Your task to perform on an android device: Go to CNN.com Image 0: 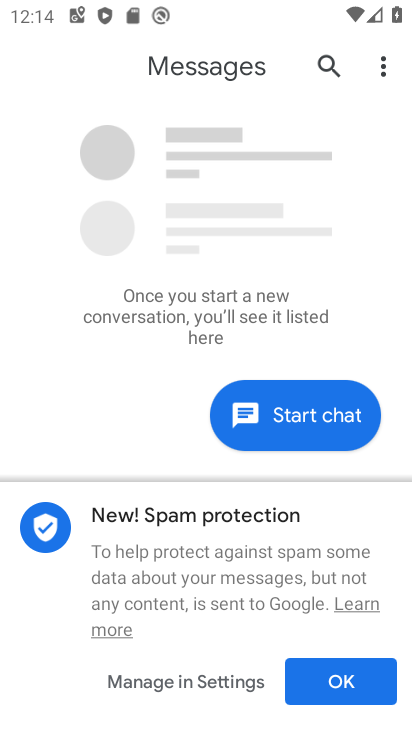
Step 0: press home button
Your task to perform on an android device: Go to CNN.com Image 1: 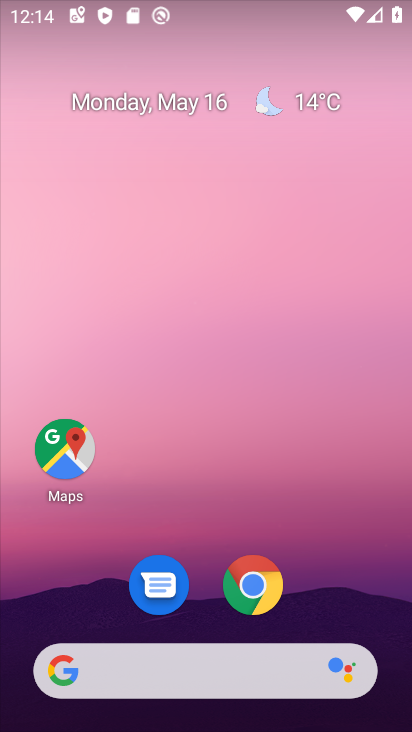
Step 1: click (192, 674)
Your task to perform on an android device: Go to CNN.com Image 2: 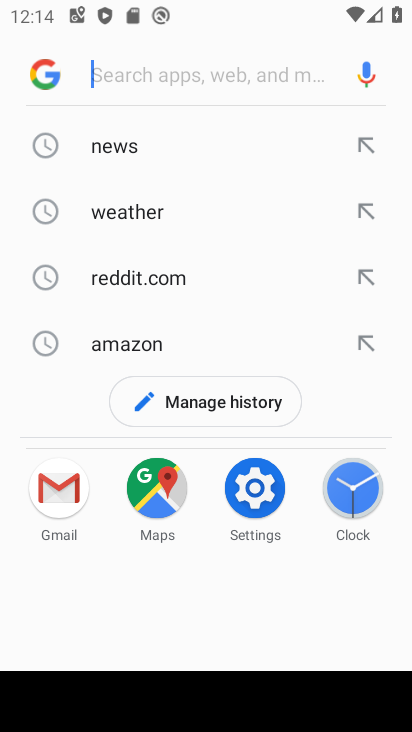
Step 2: type "cnn.com"
Your task to perform on an android device: Go to CNN.com Image 3: 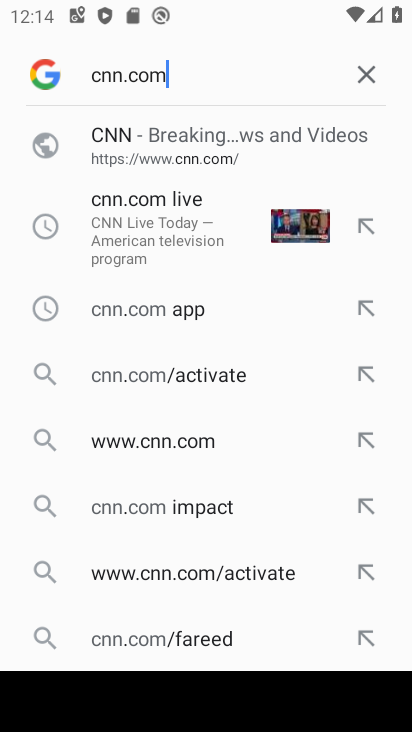
Step 3: click (98, 143)
Your task to perform on an android device: Go to CNN.com Image 4: 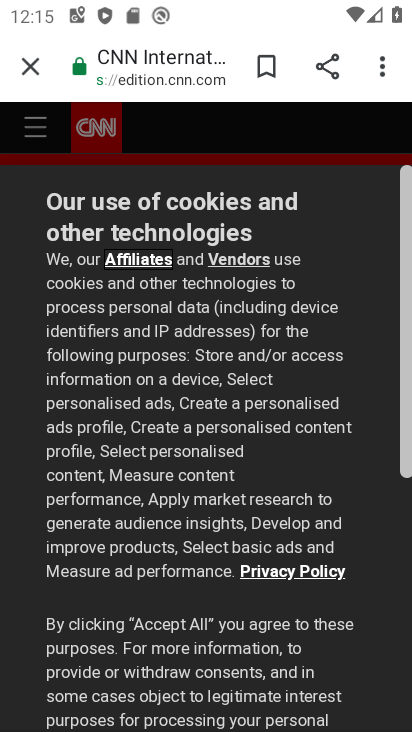
Step 4: task complete